Your task to perform on an android device: Open maps Image 0: 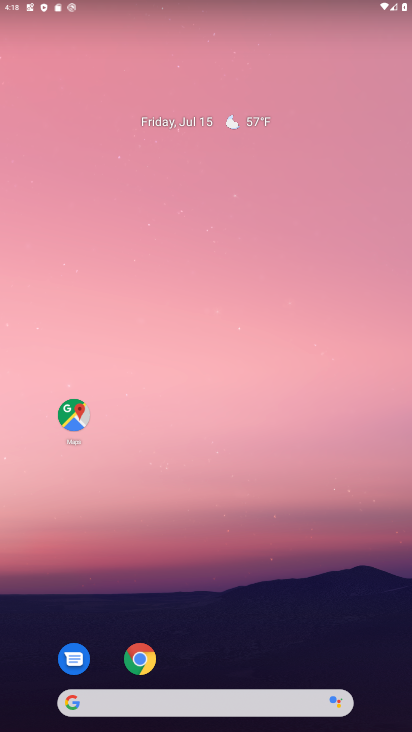
Step 0: click (86, 417)
Your task to perform on an android device: Open maps Image 1: 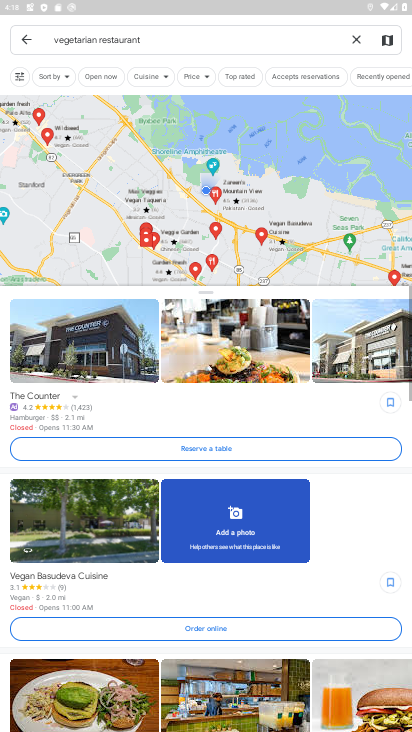
Step 1: task complete